Your task to perform on an android device: turn on airplane mode Image 0: 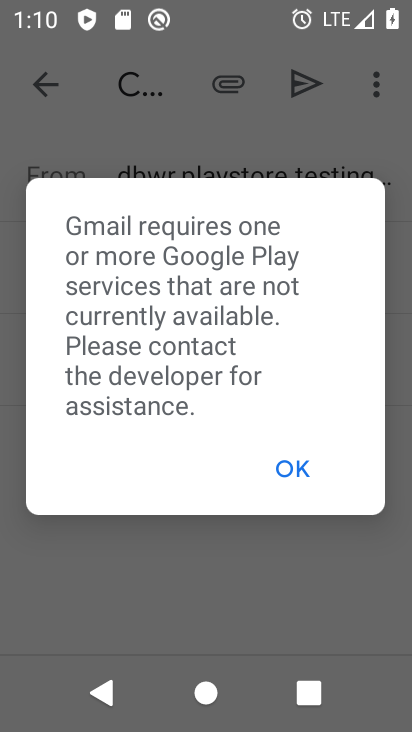
Step 0: press home button
Your task to perform on an android device: turn on airplane mode Image 1: 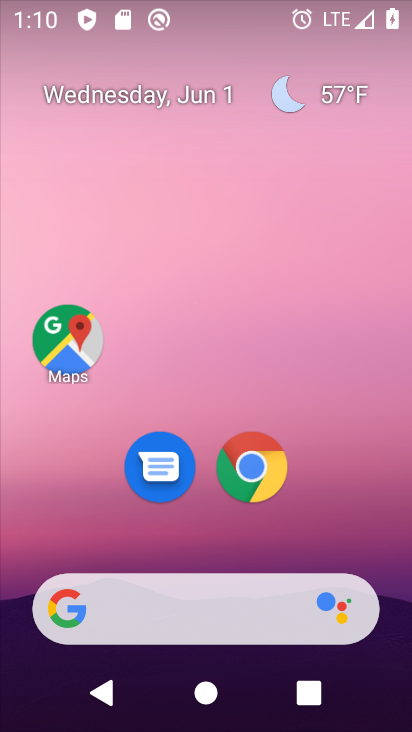
Step 1: drag from (371, 517) to (354, 90)
Your task to perform on an android device: turn on airplane mode Image 2: 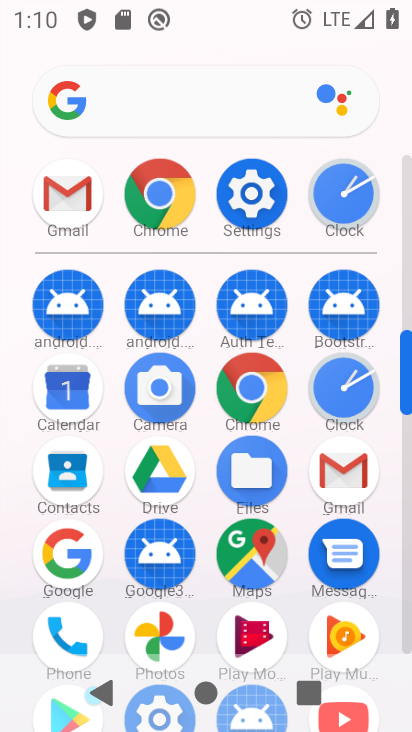
Step 2: click (264, 210)
Your task to perform on an android device: turn on airplane mode Image 3: 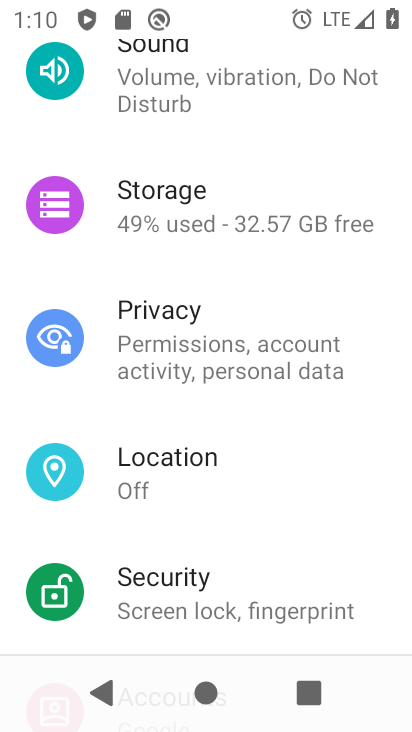
Step 3: drag from (344, 522) to (381, 295)
Your task to perform on an android device: turn on airplane mode Image 4: 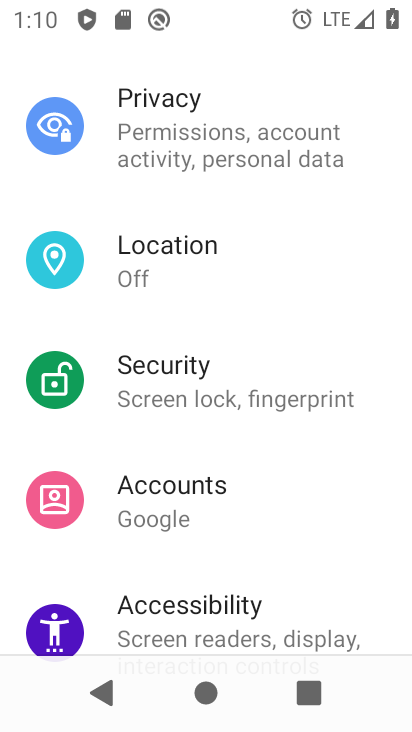
Step 4: drag from (349, 536) to (351, 340)
Your task to perform on an android device: turn on airplane mode Image 5: 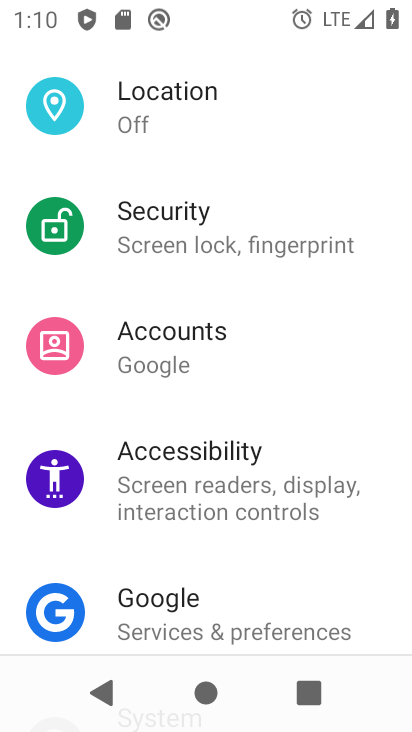
Step 5: drag from (355, 570) to (369, 360)
Your task to perform on an android device: turn on airplane mode Image 6: 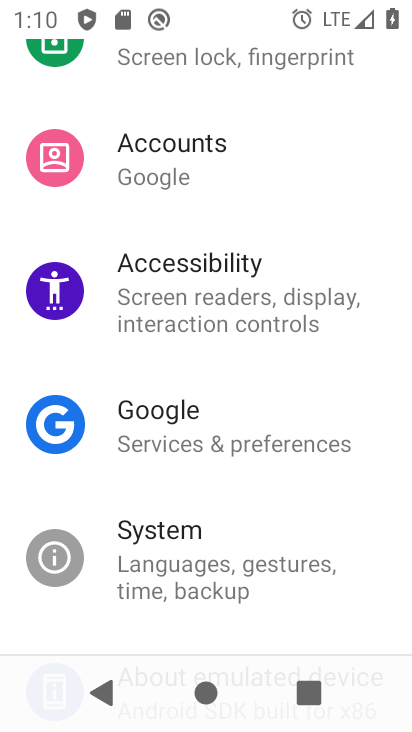
Step 6: drag from (377, 310) to (395, 572)
Your task to perform on an android device: turn on airplane mode Image 7: 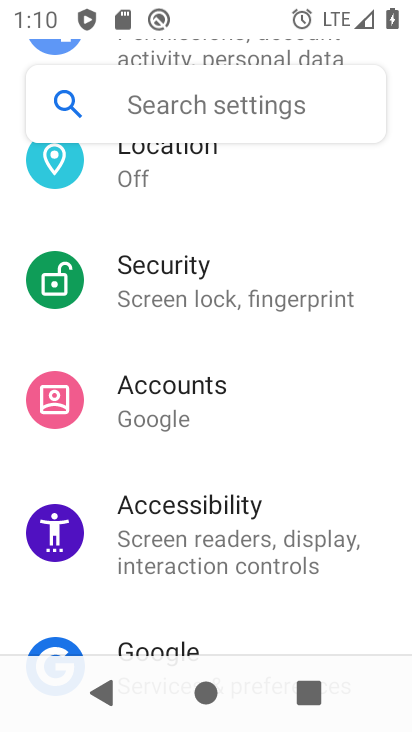
Step 7: drag from (361, 237) to (361, 476)
Your task to perform on an android device: turn on airplane mode Image 8: 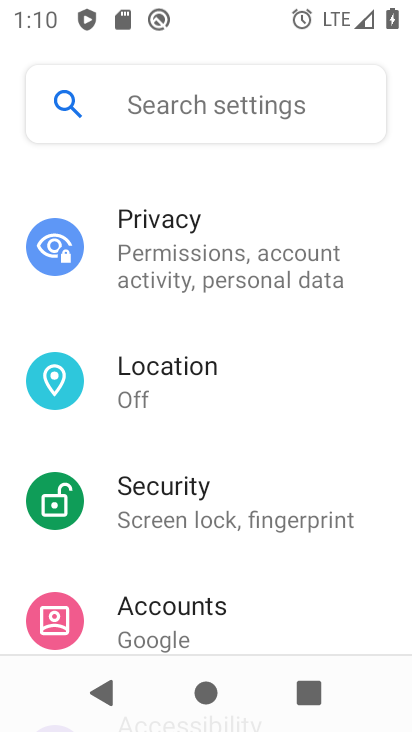
Step 8: drag from (363, 245) to (365, 424)
Your task to perform on an android device: turn on airplane mode Image 9: 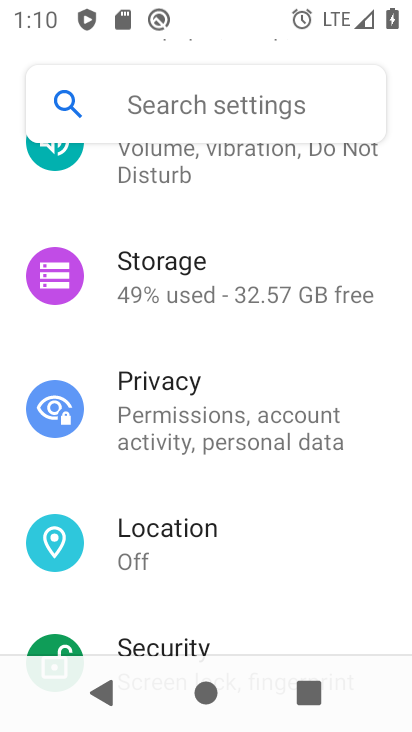
Step 9: drag from (364, 227) to (372, 401)
Your task to perform on an android device: turn on airplane mode Image 10: 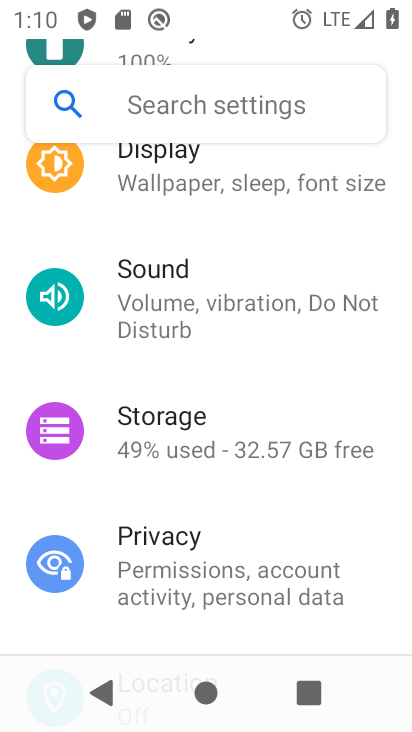
Step 10: drag from (364, 218) to (363, 375)
Your task to perform on an android device: turn on airplane mode Image 11: 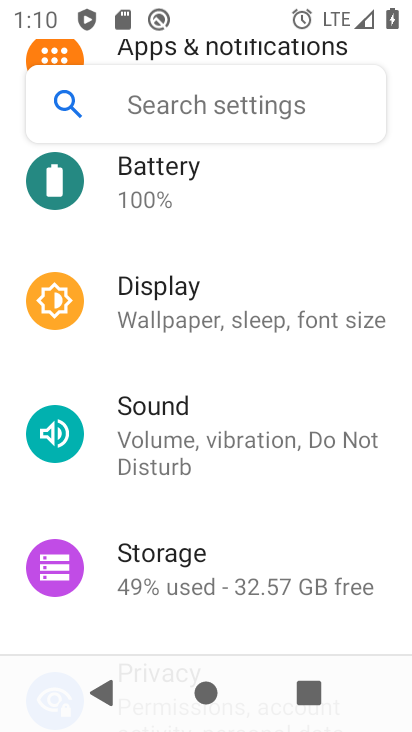
Step 11: drag from (354, 204) to (357, 353)
Your task to perform on an android device: turn on airplane mode Image 12: 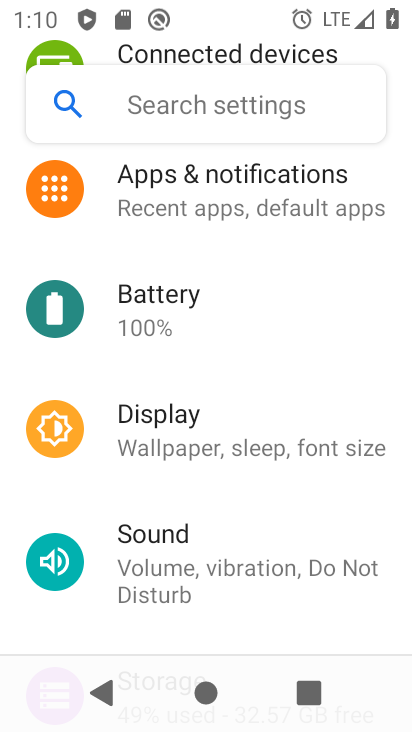
Step 12: drag from (362, 290) to (337, 501)
Your task to perform on an android device: turn on airplane mode Image 13: 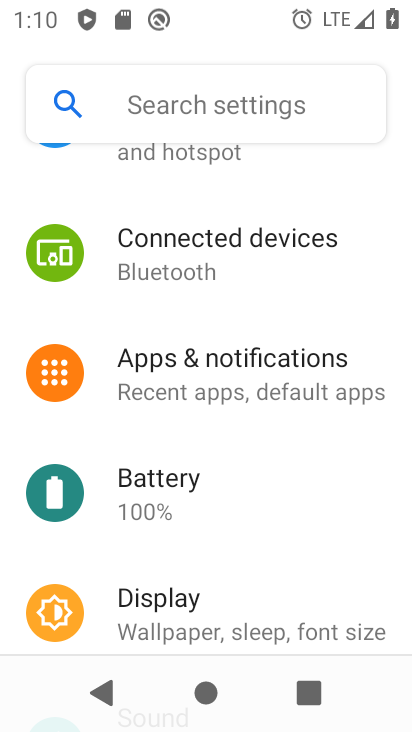
Step 13: drag from (351, 225) to (354, 405)
Your task to perform on an android device: turn on airplane mode Image 14: 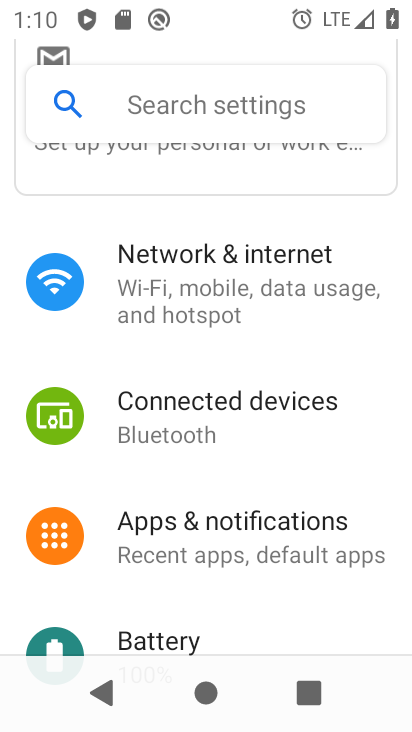
Step 14: drag from (353, 234) to (345, 426)
Your task to perform on an android device: turn on airplane mode Image 15: 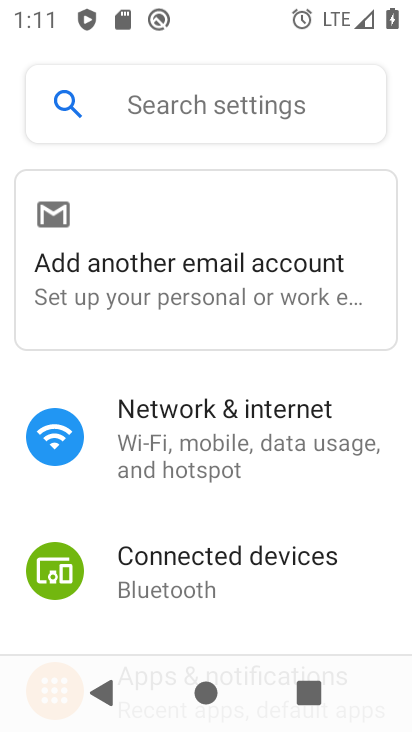
Step 15: click (232, 469)
Your task to perform on an android device: turn on airplane mode Image 16: 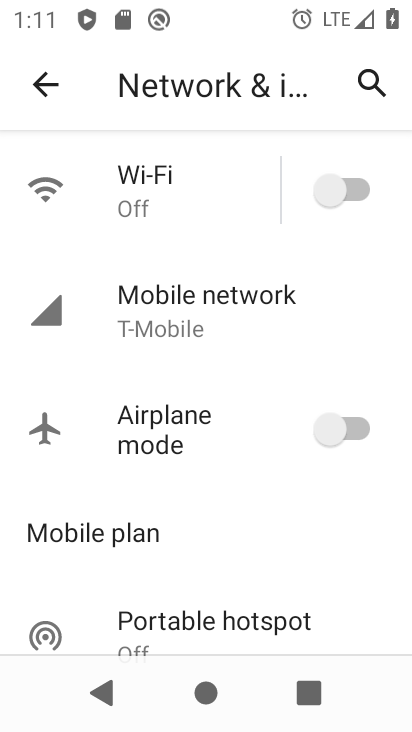
Step 16: click (314, 433)
Your task to perform on an android device: turn on airplane mode Image 17: 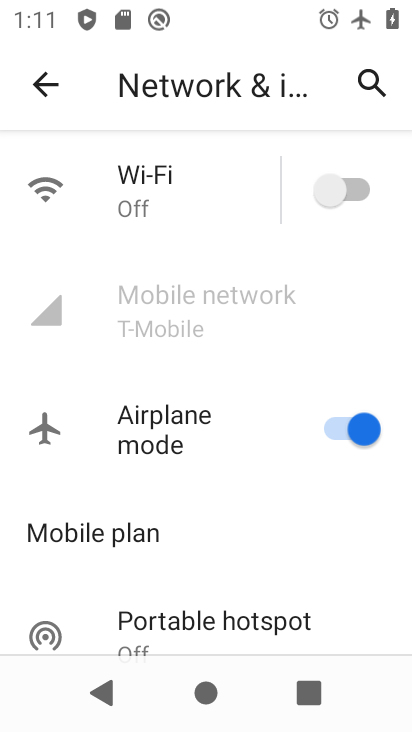
Step 17: task complete